Your task to perform on an android device: Open network settings Image 0: 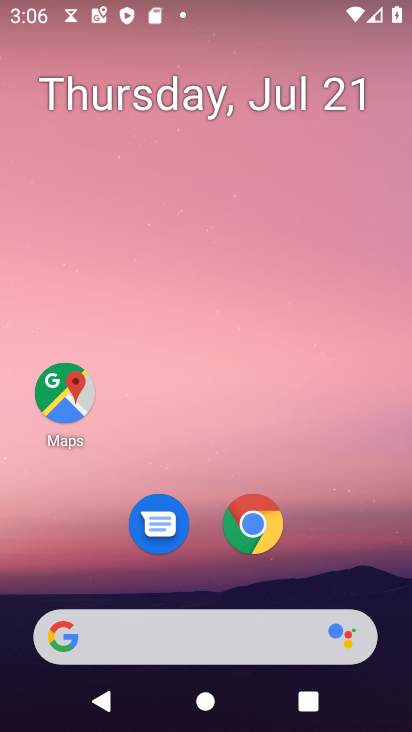
Step 0: press home button
Your task to perform on an android device: Open network settings Image 1: 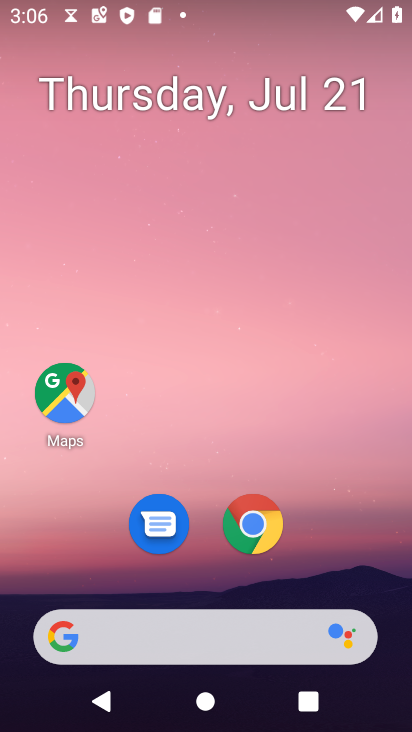
Step 1: drag from (202, 626) to (314, 45)
Your task to perform on an android device: Open network settings Image 2: 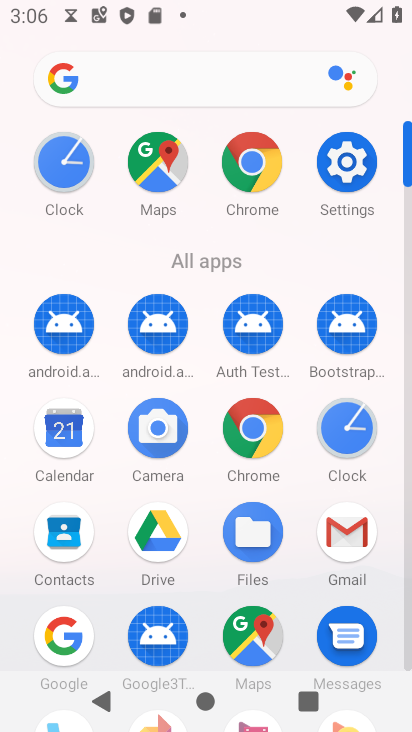
Step 2: click (345, 166)
Your task to perform on an android device: Open network settings Image 3: 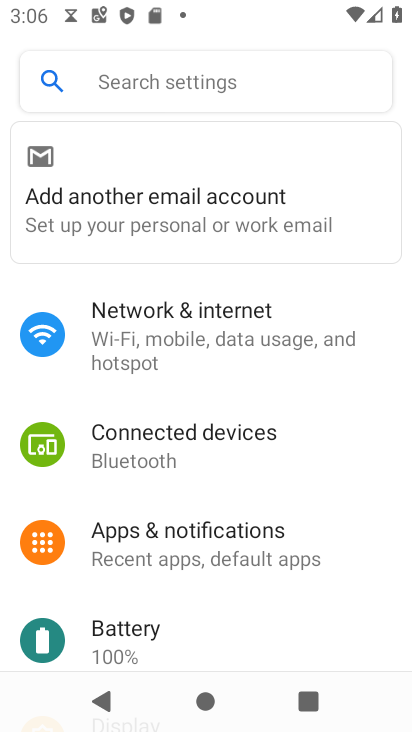
Step 3: click (171, 330)
Your task to perform on an android device: Open network settings Image 4: 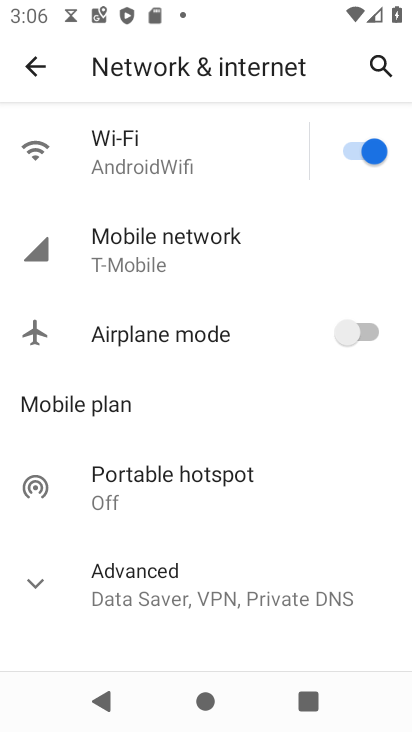
Step 4: click (140, 248)
Your task to perform on an android device: Open network settings Image 5: 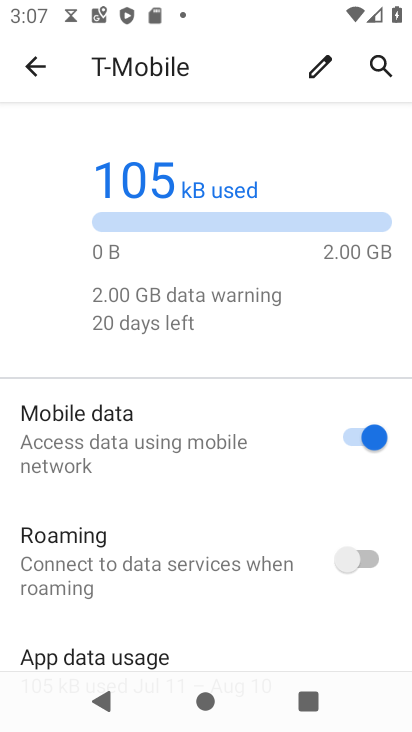
Step 5: task complete